Your task to perform on an android device: Open Yahoo.com Image 0: 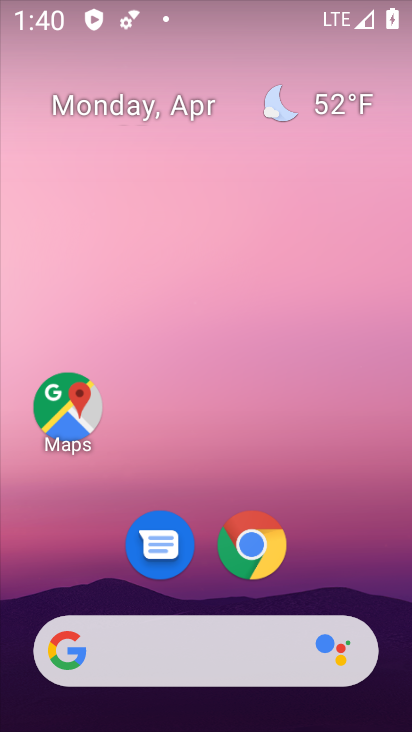
Step 0: click (251, 539)
Your task to perform on an android device: Open Yahoo.com Image 1: 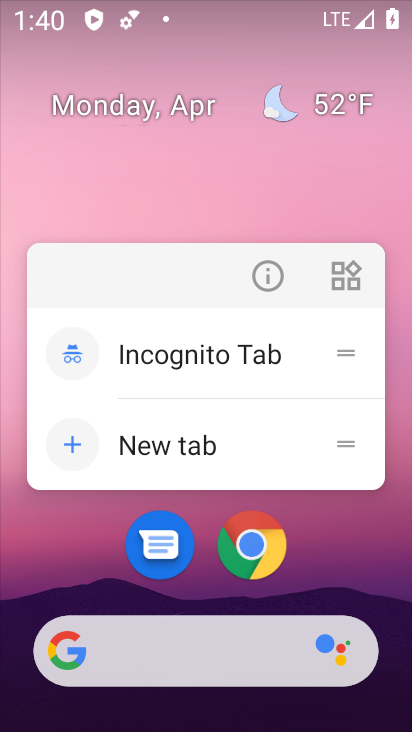
Step 1: click (251, 550)
Your task to perform on an android device: Open Yahoo.com Image 2: 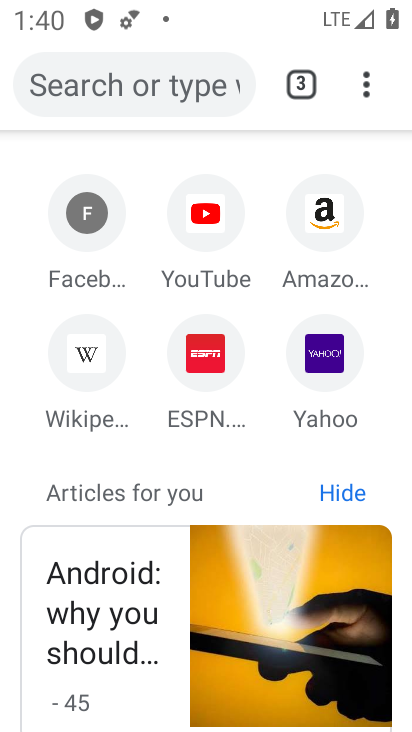
Step 2: click (325, 360)
Your task to perform on an android device: Open Yahoo.com Image 3: 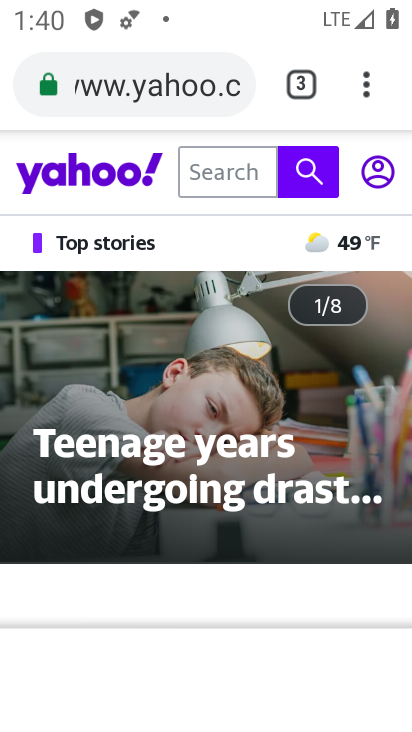
Step 3: task complete